Your task to perform on an android device: change the clock style Image 0: 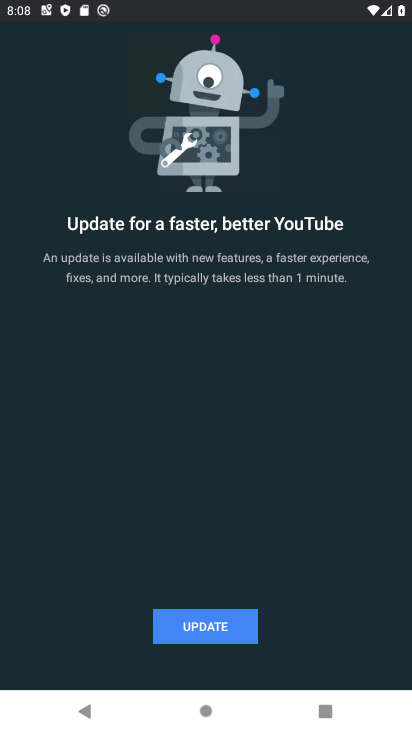
Step 0: press back button
Your task to perform on an android device: change the clock style Image 1: 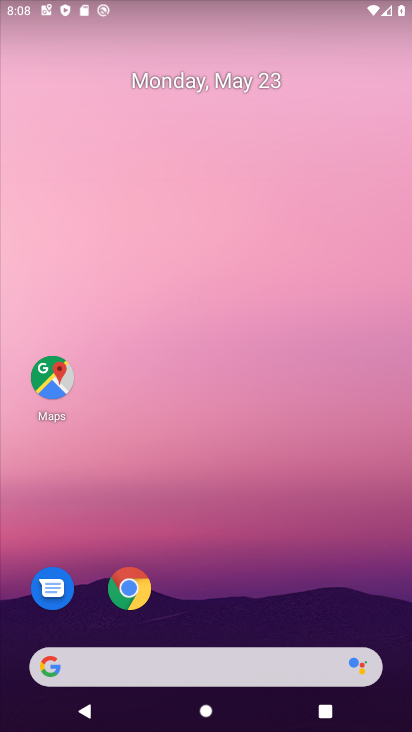
Step 1: drag from (394, 683) to (397, 334)
Your task to perform on an android device: change the clock style Image 2: 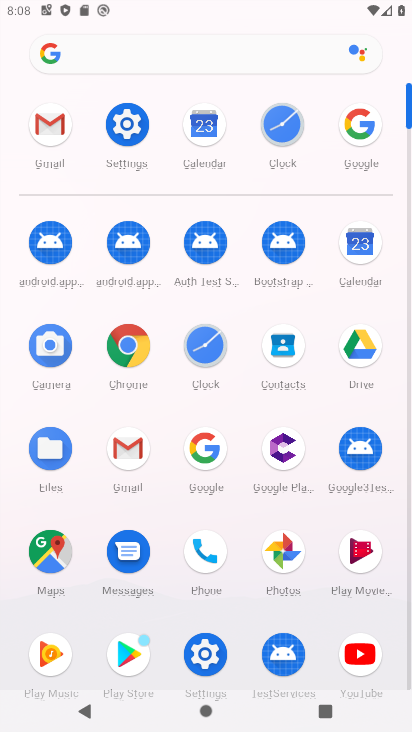
Step 2: click (275, 124)
Your task to perform on an android device: change the clock style Image 3: 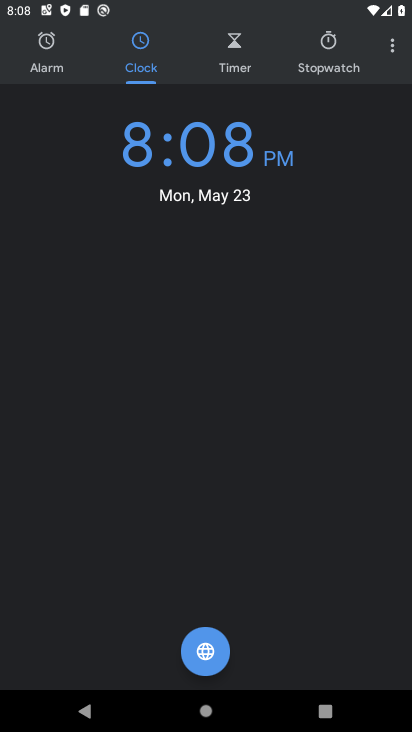
Step 3: click (388, 44)
Your task to perform on an android device: change the clock style Image 4: 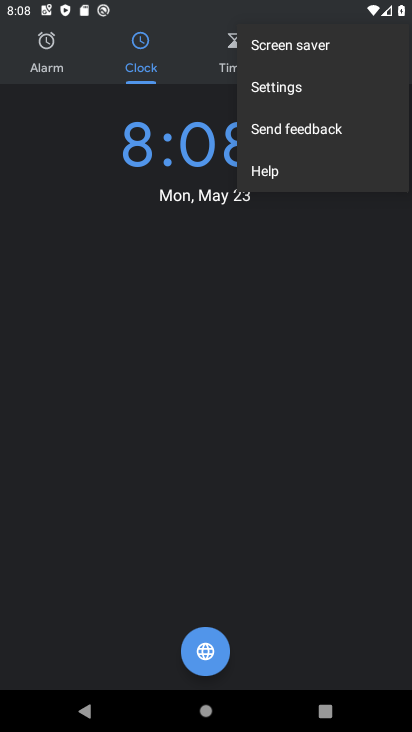
Step 4: click (294, 80)
Your task to perform on an android device: change the clock style Image 5: 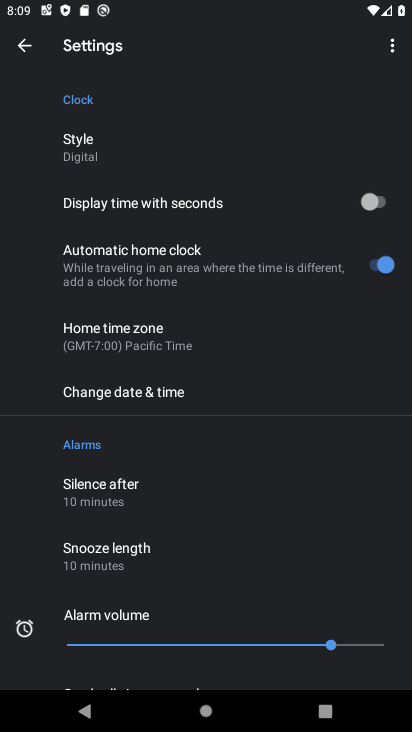
Step 5: click (88, 147)
Your task to perform on an android device: change the clock style Image 6: 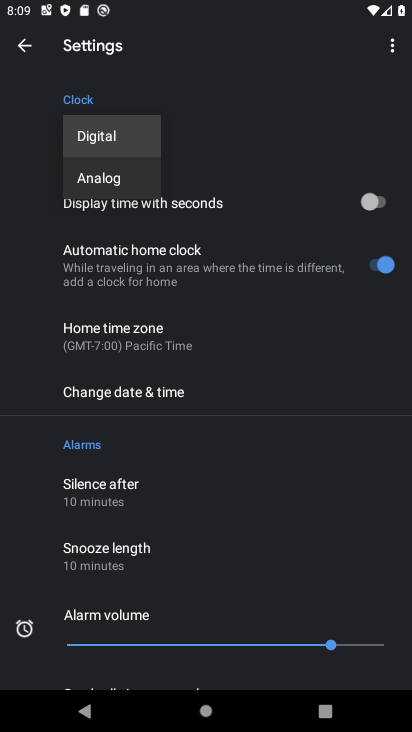
Step 6: click (105, 174)
Your task to perform on an android device: change the clock style Image 7: 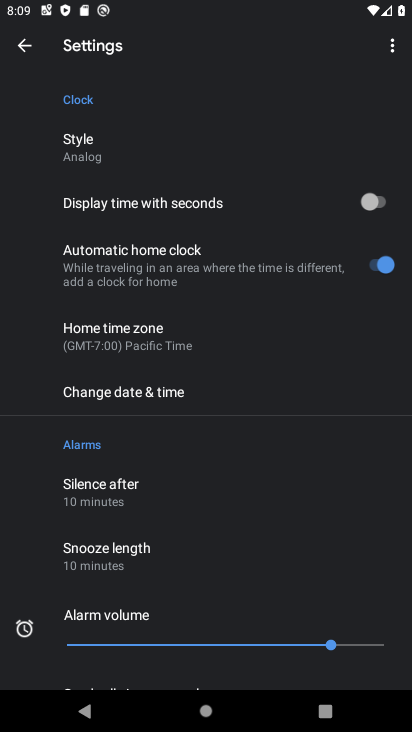
Step 7: task complete